Your task to perform on an android device: turn off location Image 0: 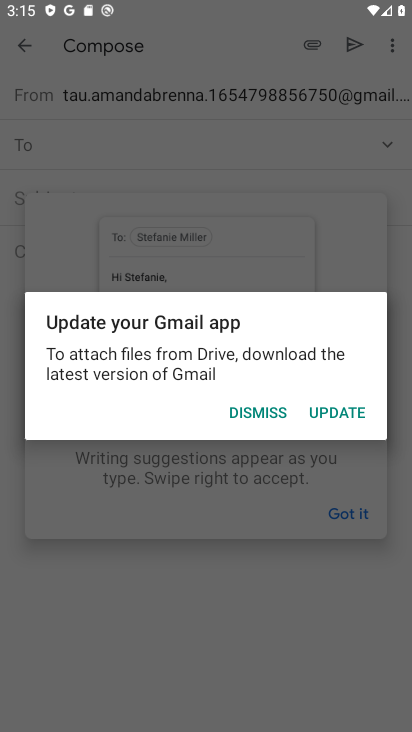
Step 0: press home button
Your task to perform on an android device: turn off location Image 1: 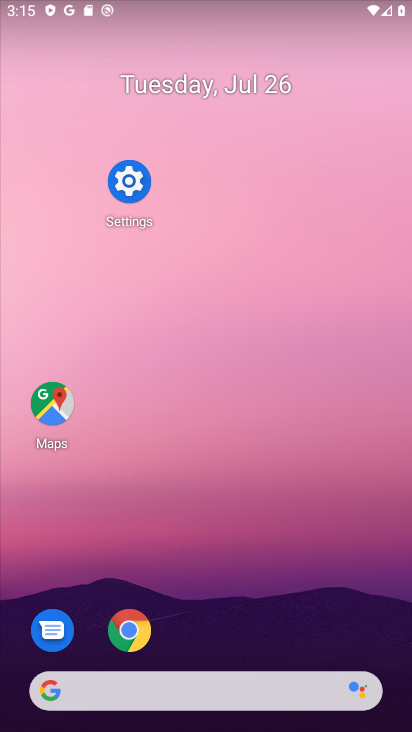
Step 1: click (133, 188)
Your task to perform on an android device: turn off location Image 2: 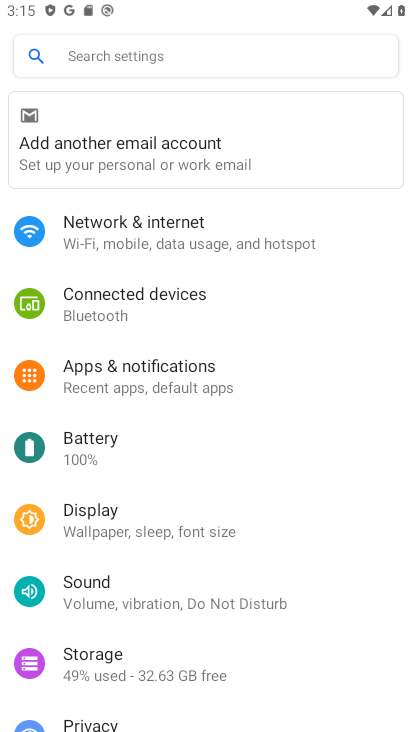
Step 2: drag from (130, 558) to (220, 254)
Your task to perform on an android device: turn off location Image 3: 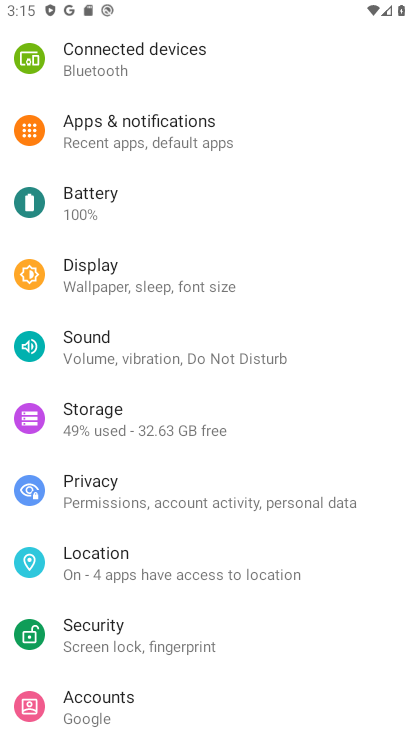
Step 3: click (98, 573)
Your task to perform on an android device: turn off location Image 4: 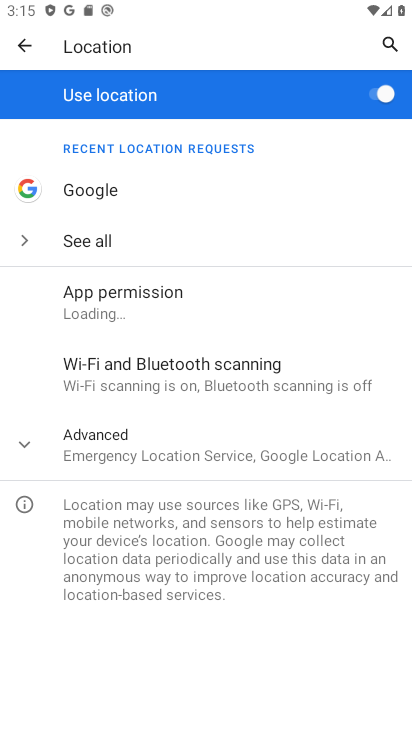
Step 4: click (397, 90)
Your task to perform on an android device: turn off location Image 5: 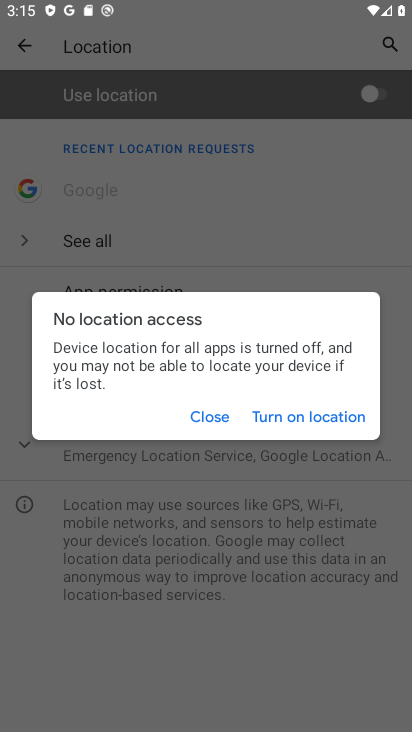
Step 5: task complete